Your task to perform on an android device: toggle airplane mode Image 0: 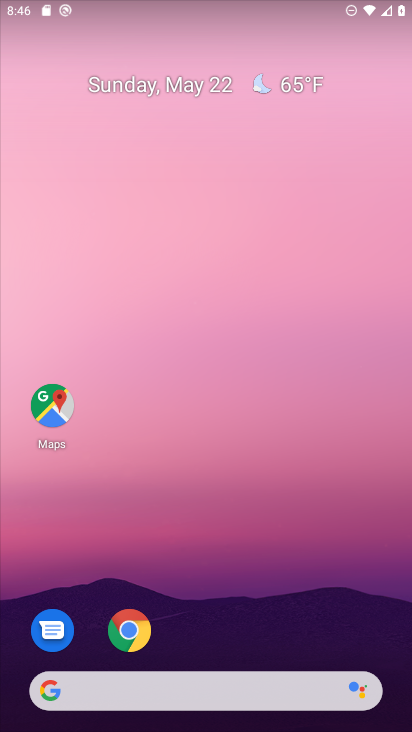
Step 0: press home button
Your task to perform on an android device: toggle airplane mode Image 1: 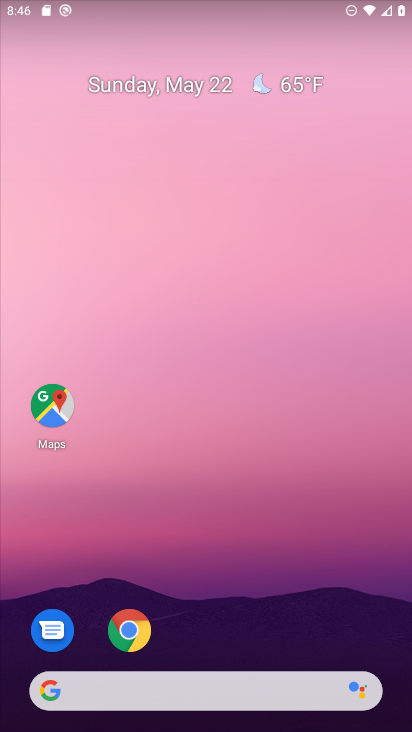
Step 1: drag from (151, 701) to (315, 212)
Your task to perform on an android device: toggle airplane mode Image 2: 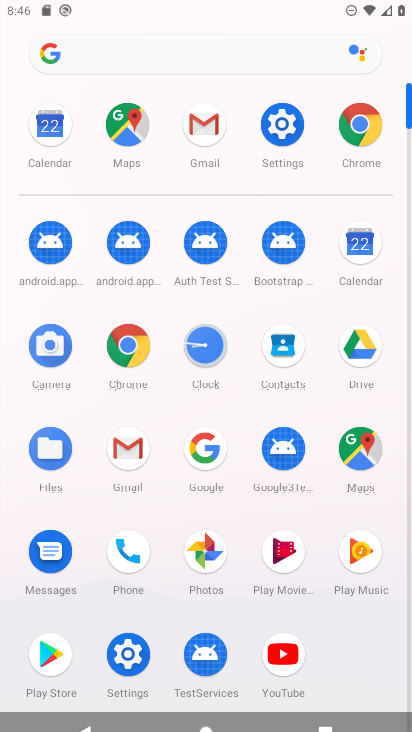
Step 2: click (290, 131)
Your task to perform on an android device: toggle airplane mode Image 3: 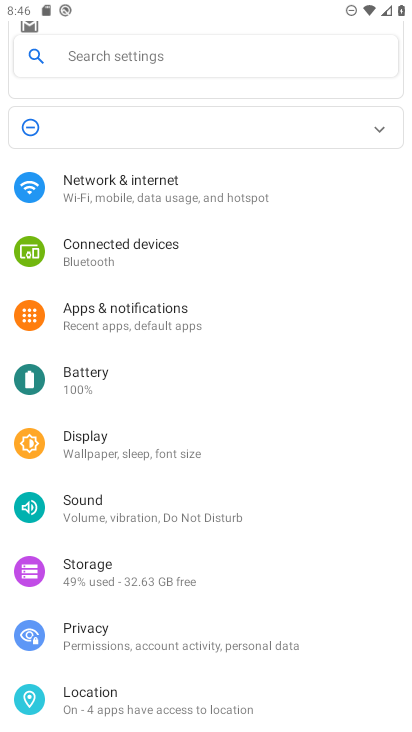
Step 3: click (170, 187)
Your task to perform on an android device: toggle airplane mode Image 4: 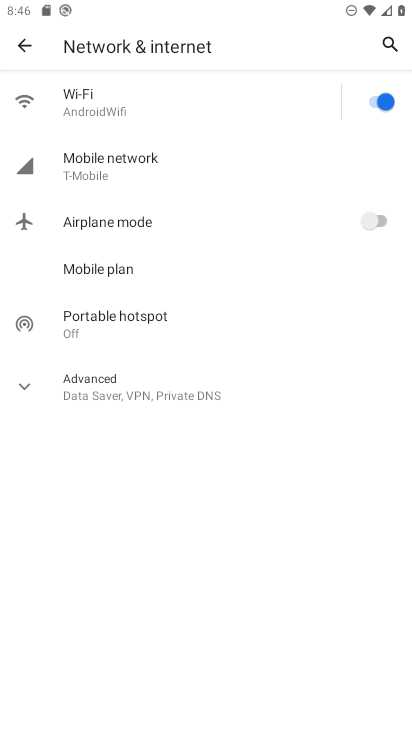
Step 4: click (384, 222)
Your task to perform on an android device: toggle airplane mode Image 5: 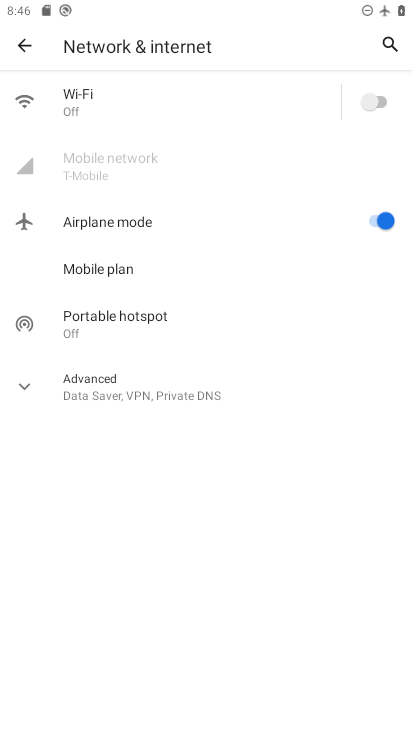
Step 5: task complete